Your task to perform on an android device: install app "Facebook" Image 0: 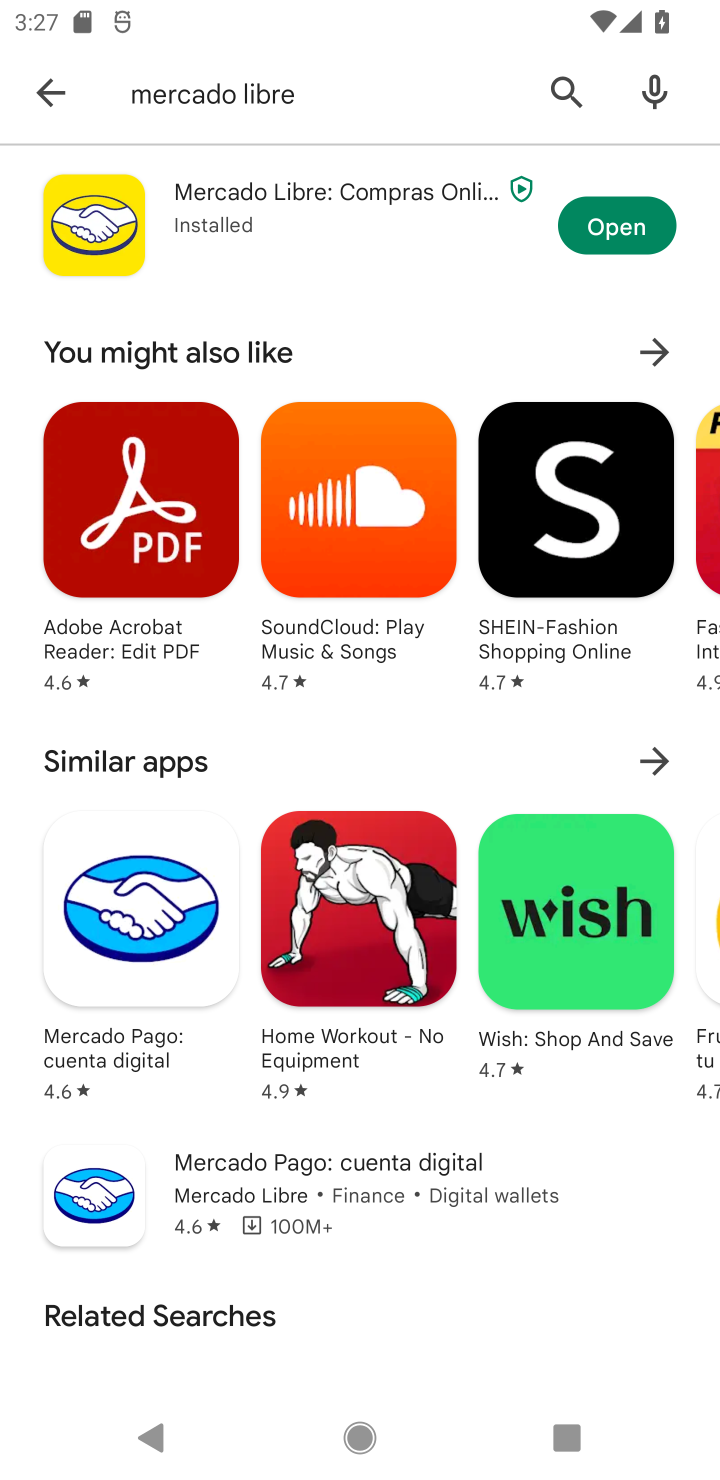
Step 0: click (563, 65)
Your task to perform on an android device: install app "Facebook" Image 1: 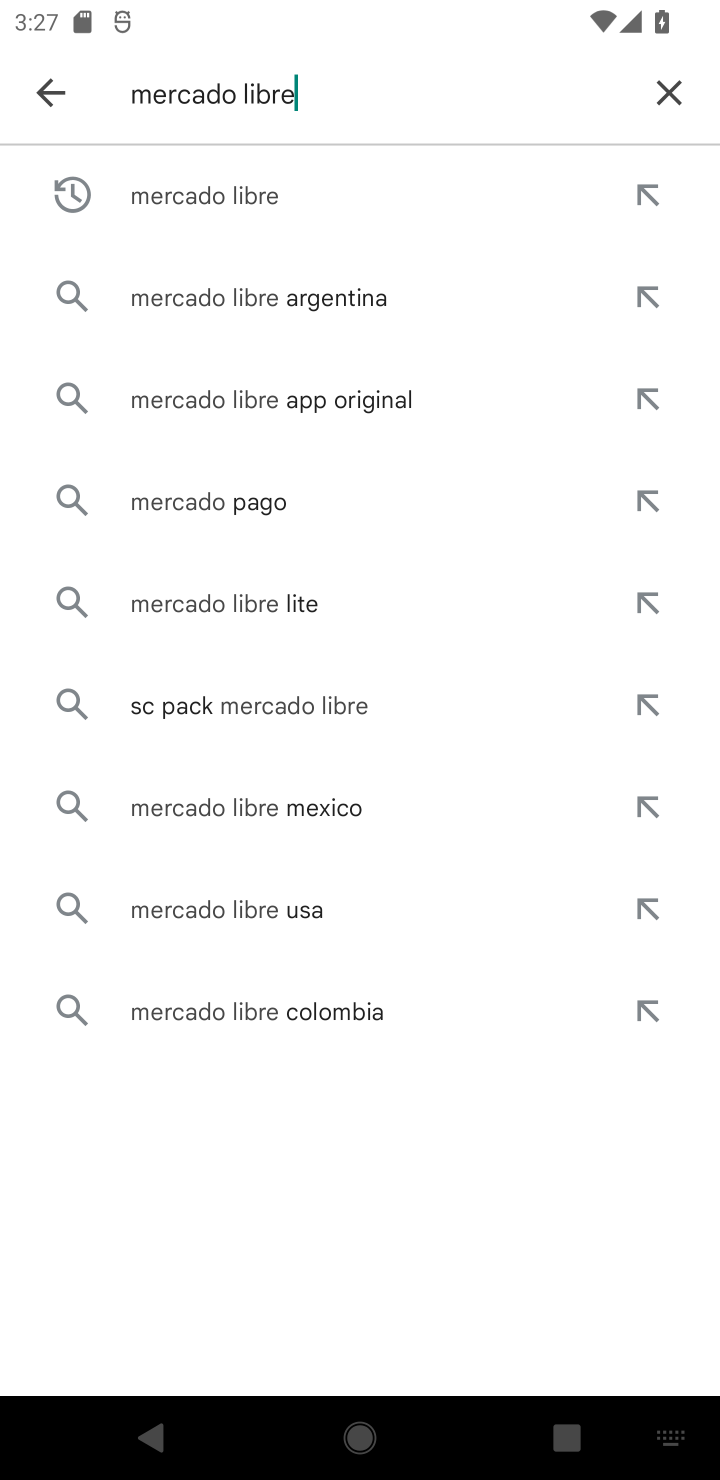
Step 1: click (672, 110)
Your task to perform on an android device: install app "Facebook" Image 2: 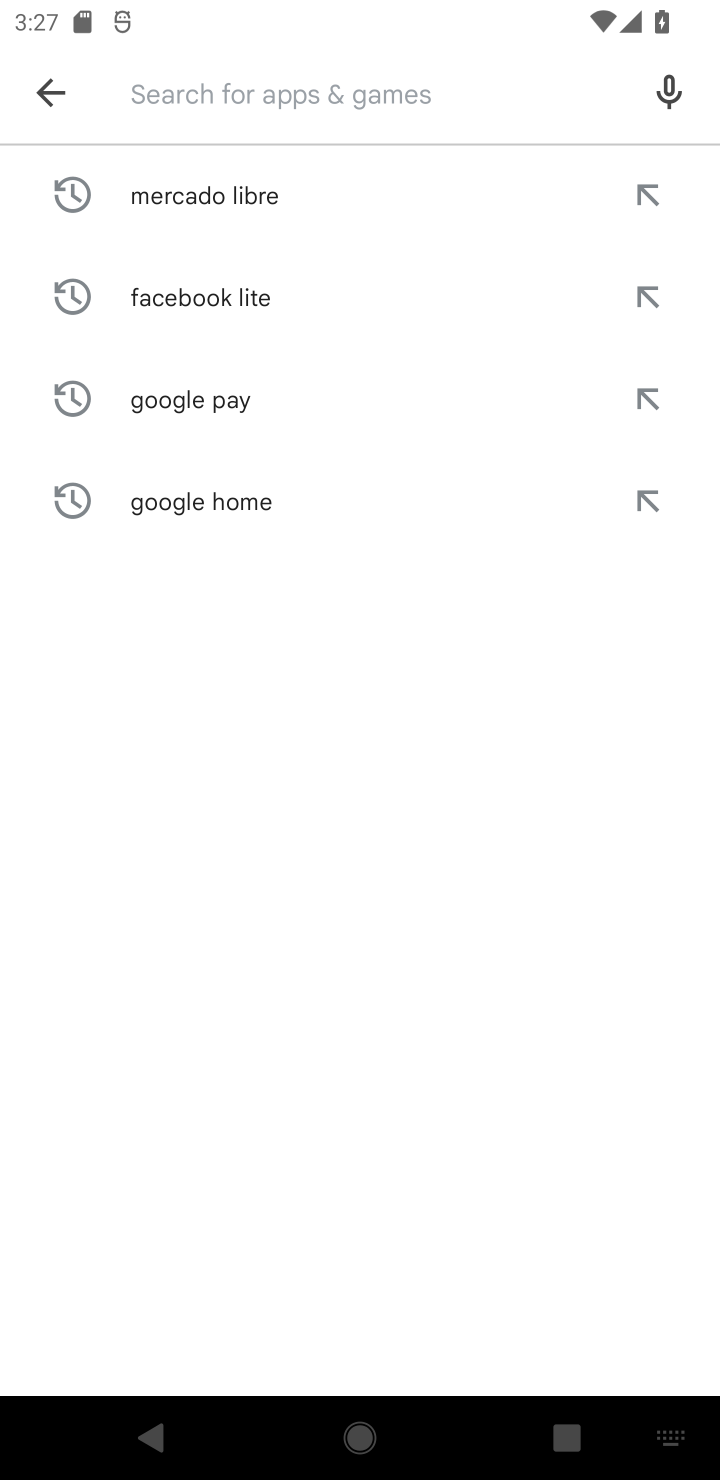
Step 2: type "facebook.com"
Your task to perform on an android device: install app "Facebook" Image 3: 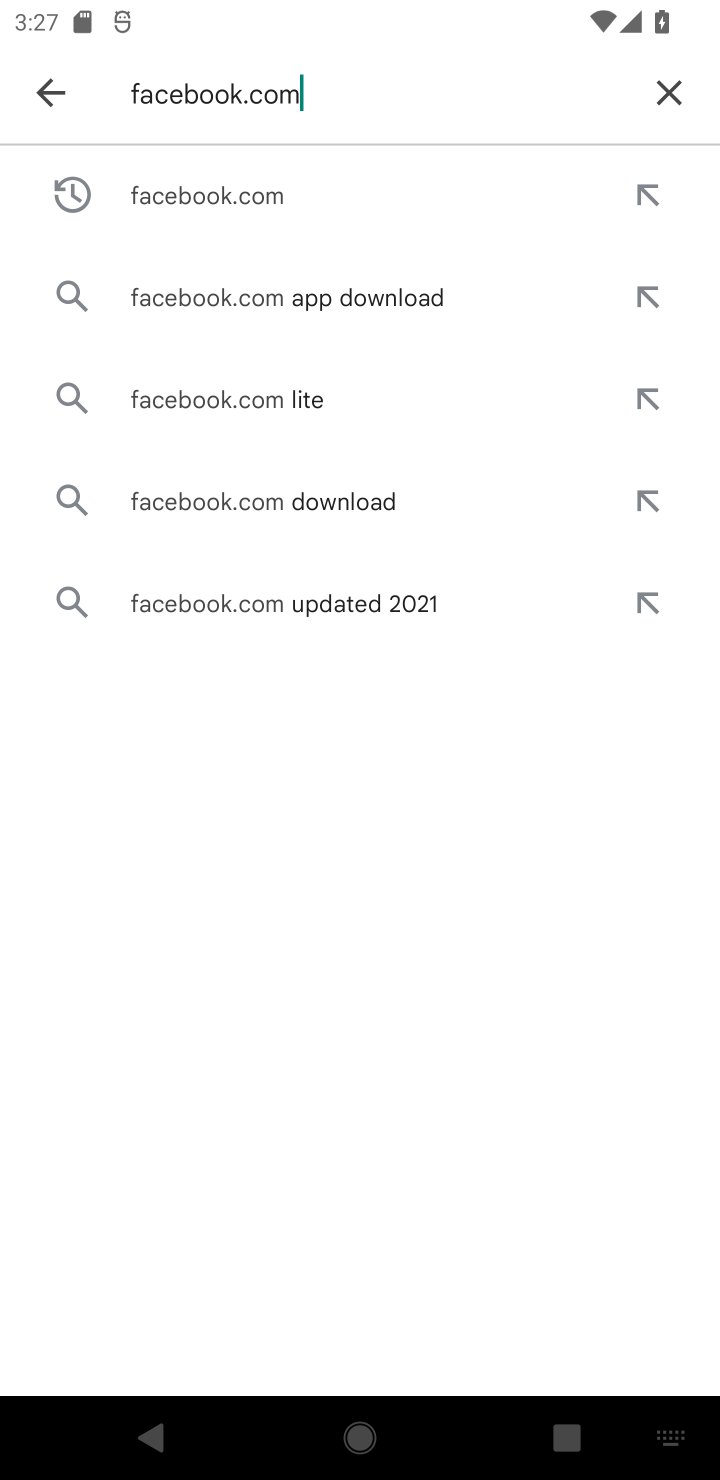
Step 3: click (378, 209)
Your task to perform on an android device: install app "Facebook" Image 4: 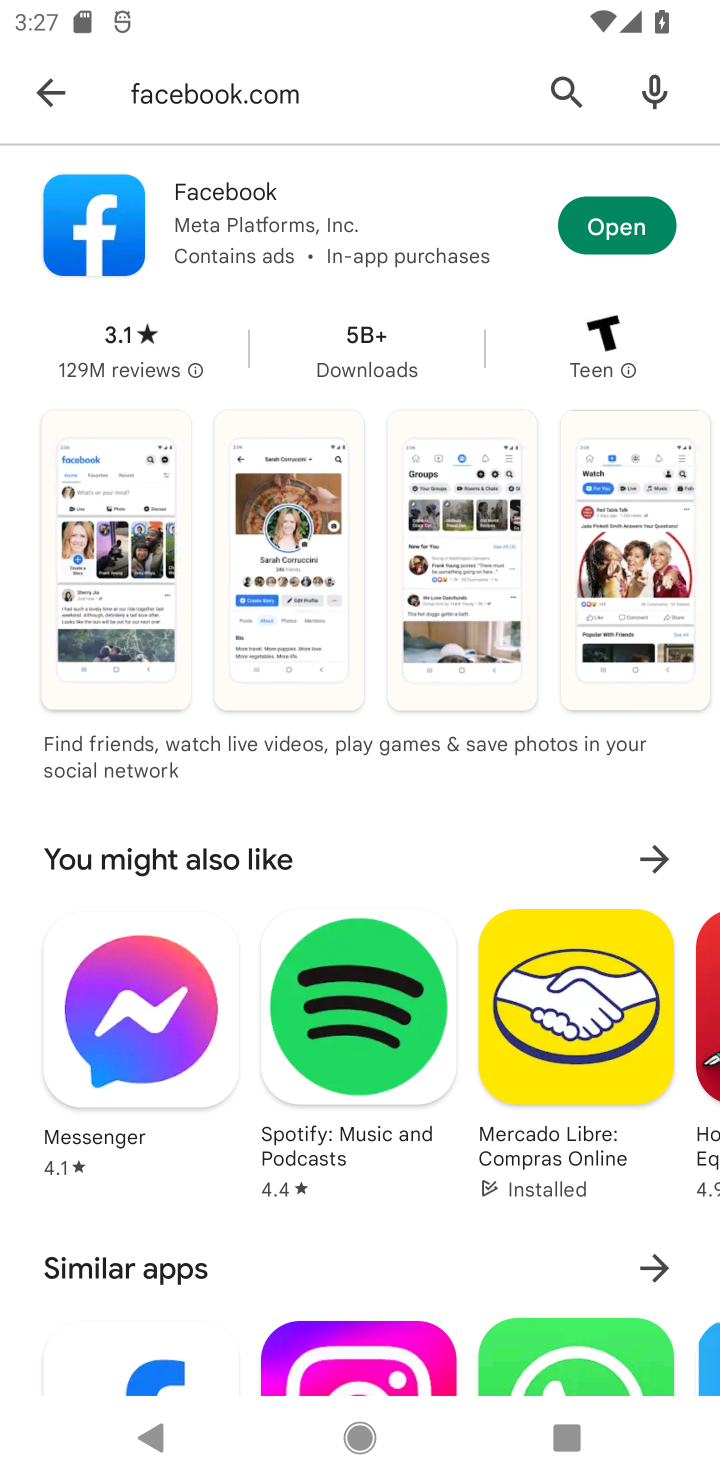
Step 4: click (558, 229)
Your task to perform on an android device: install app "Facebook" Image 5: 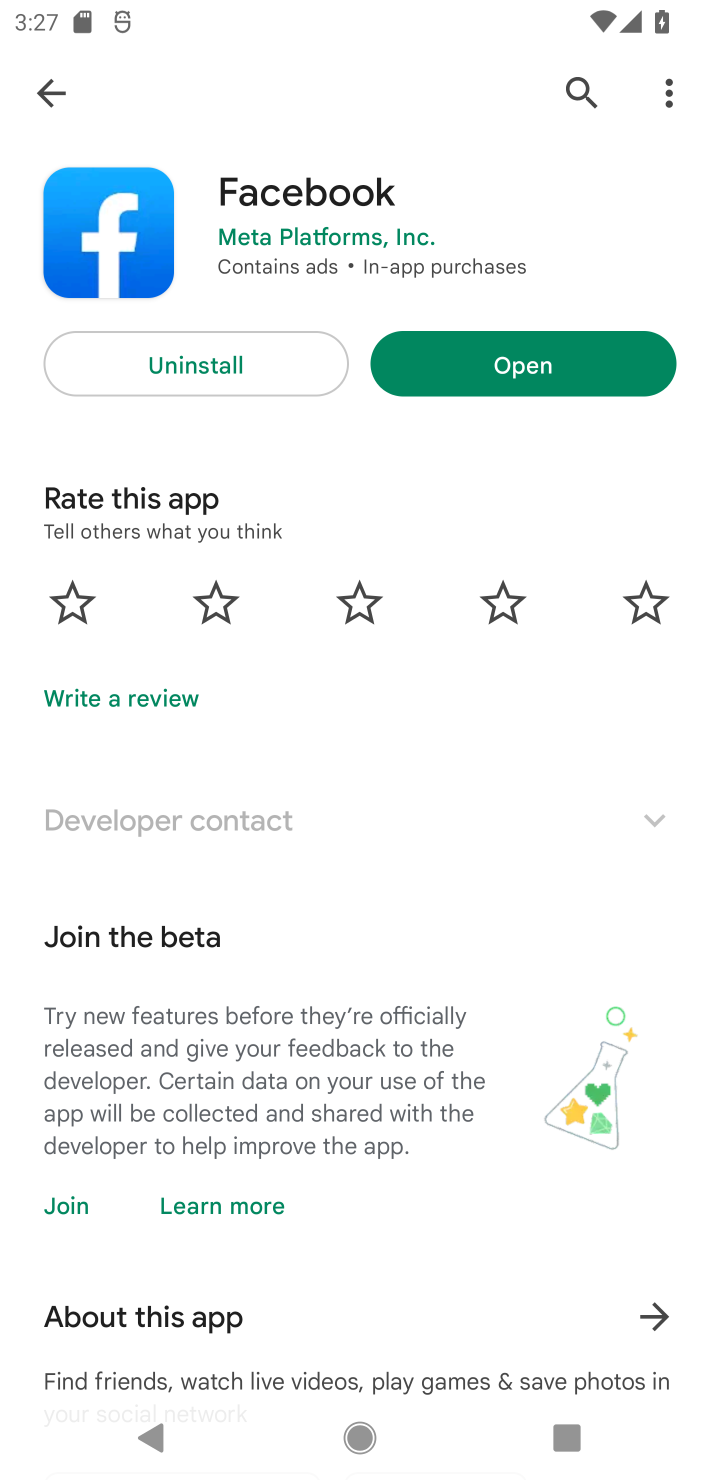
Step 5: task complete